Your task to perform on an android device: What's the weather going to be this weekend? Image 0: 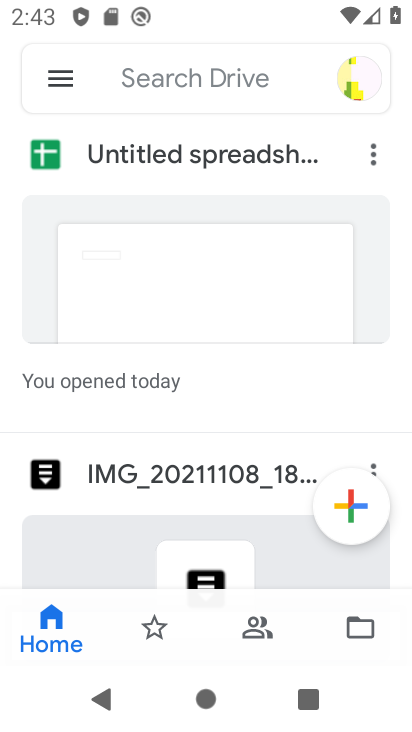
Step 0: press home button
Your task to perform on an android device: What's the weather going to be this weekend? Image 1: 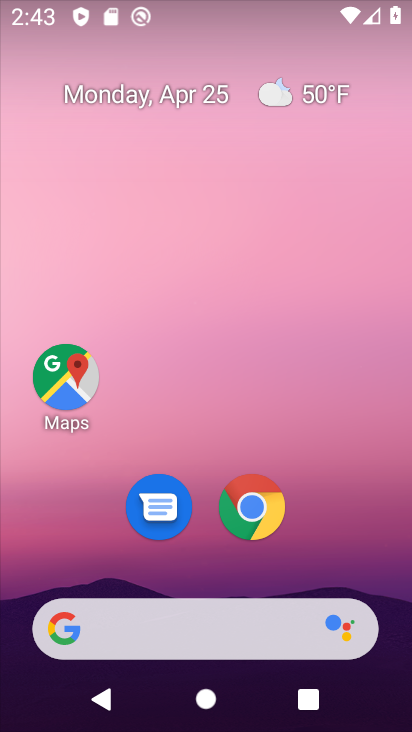
Step 1: drag from (393, 624) to (361, 53)
Your task to perform on an android device: What's the weather going to be this weekend? Image 2: 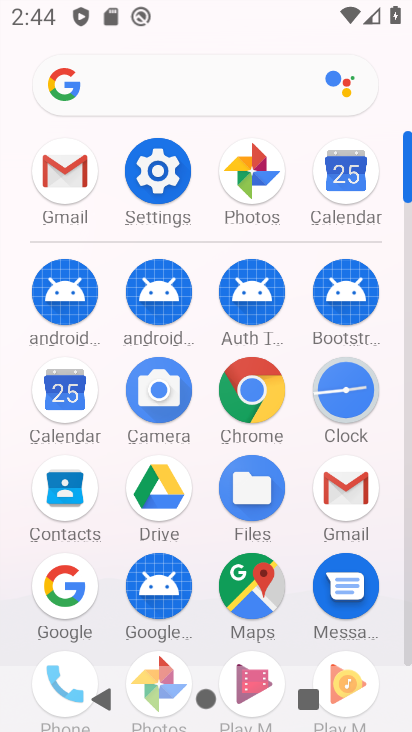
Step 2: click (405, 649)
Your task to perform on an android device: What's the weather going to be this weekend? Image 3: 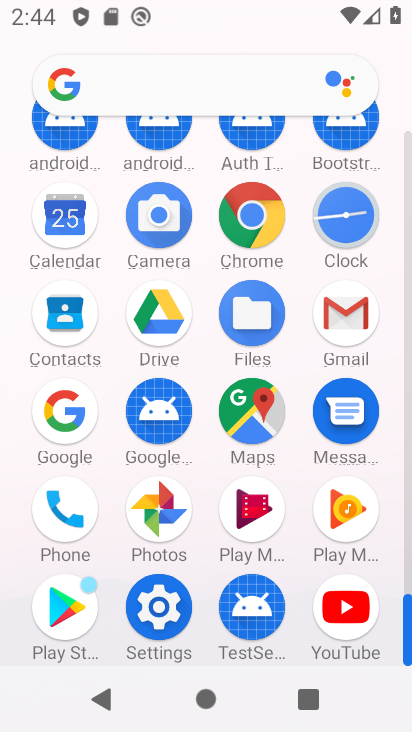
Step 3: click (61, 211)
Your task to perform on an android device: What's the weather going to be this weekend? Image 4: 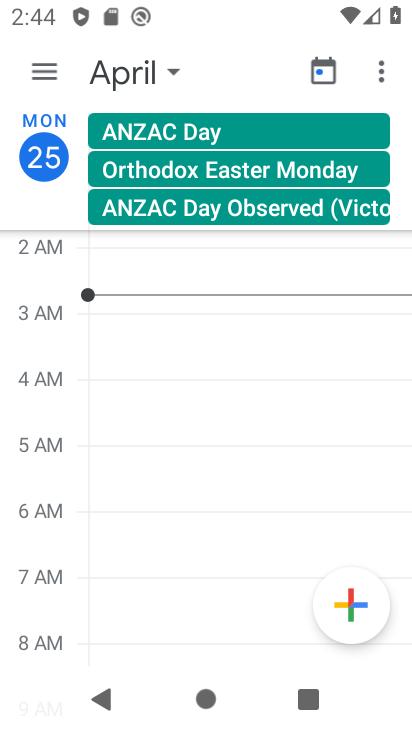
Step 4: click (43, 72)
Your task to perform on an android device: What's the weather going to be this weekend? Image 5: 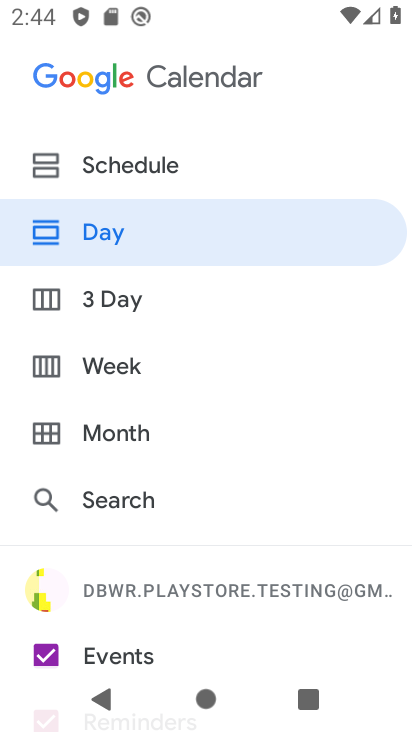
Step 5: click (116, 368)
Your task to perform on an android device: What's the weather going to be this weekend? Image 6: 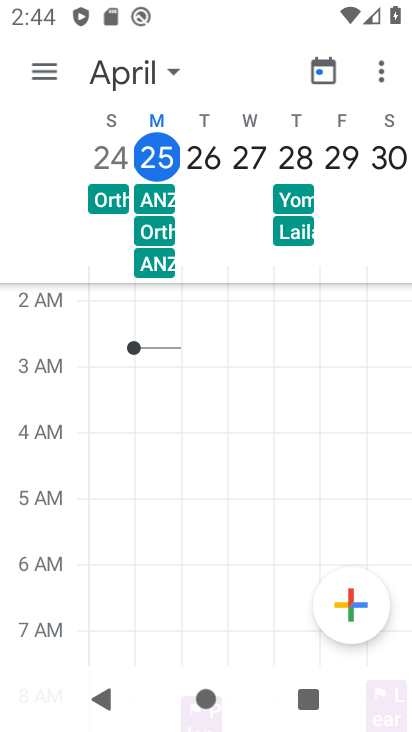
Step 6: task complete